Your task to perform on an android device: Go to Reddit.com Image 0: 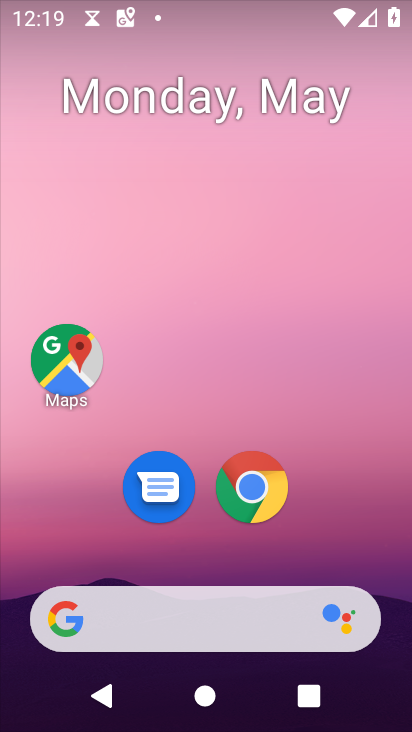
Step 0: click (263, 475)
Your task to perform on an android device: Go to Reddit.com Image 1: 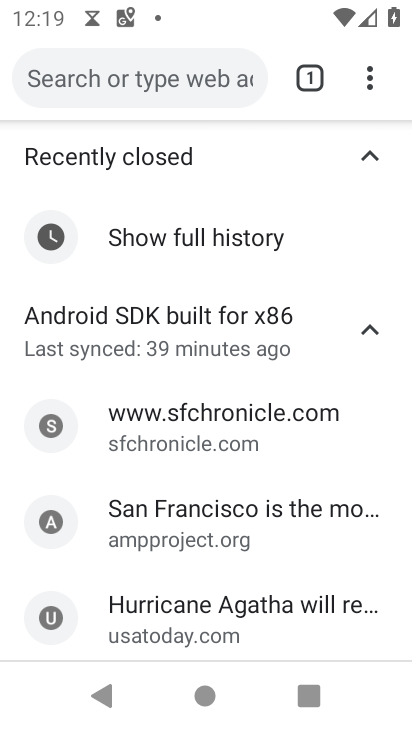
Step 1: click (142, 70)
Your task to perform on an android device: Go to Reddit.com Image 2: 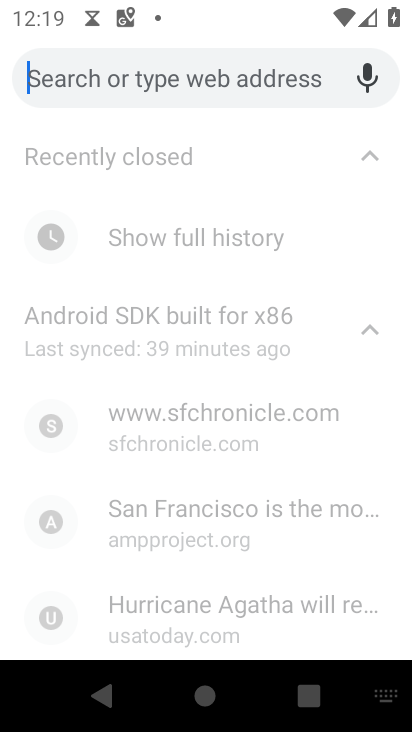
Step 2: type "Reddit.com"
Your task to perform on an android device: Go to Reddit.com Image 3: 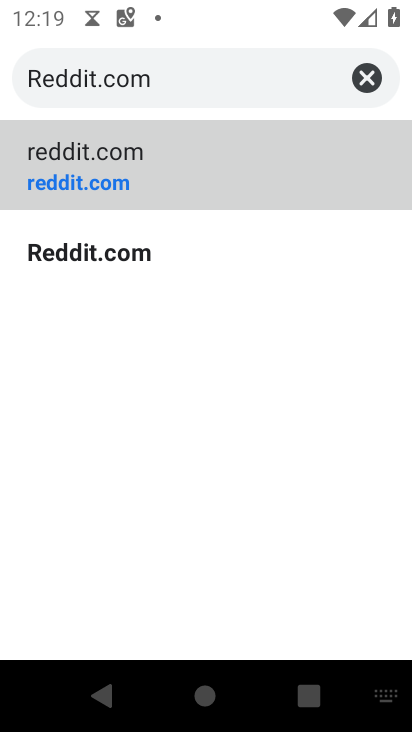
Step 3: click (67, 160)
Your task to perform on an android device: Go to Reddit.com Image 4: 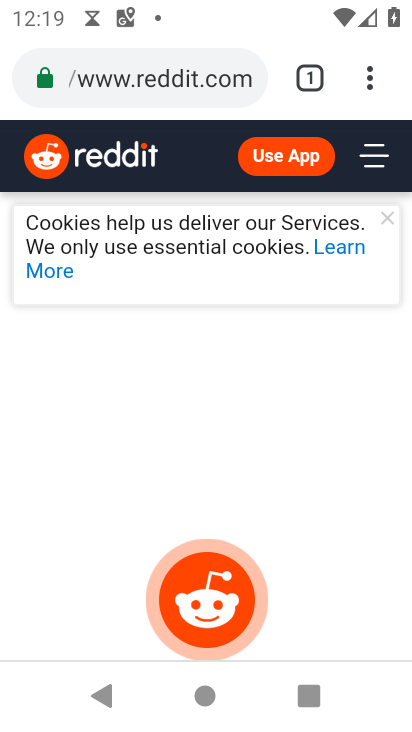
Step 4: task complete